Your task to perform on an android device: turn on the 24-hour format for clock Image 0: 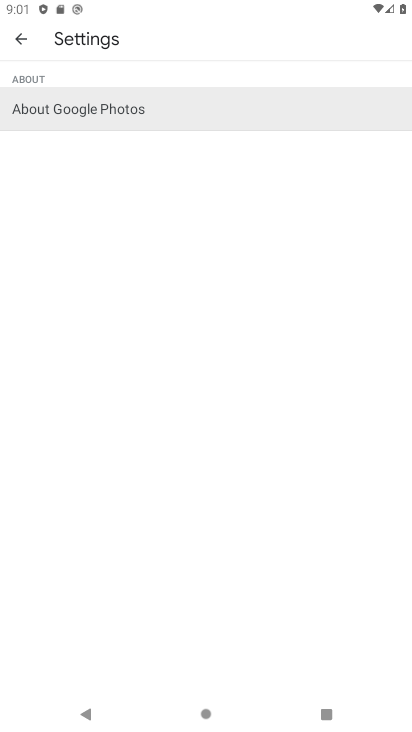
Step 0: click (11, 36)
Your task to perform on an android device: turn on the 24-hour format for clock Image 1: 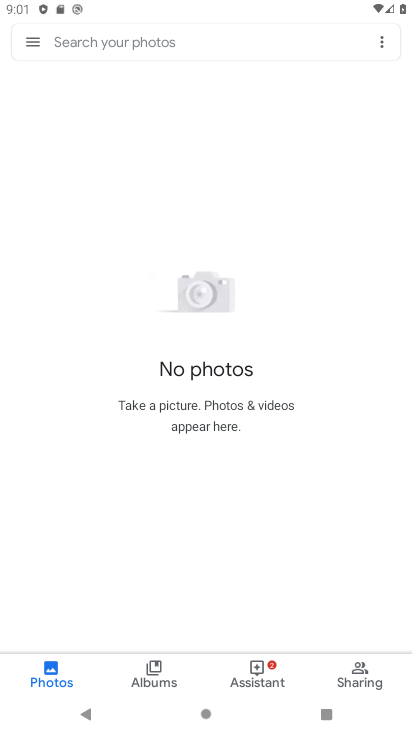
Step 1: press back button
Your task to perform on an android device: turn on the 24-hour format for clock Image 2: 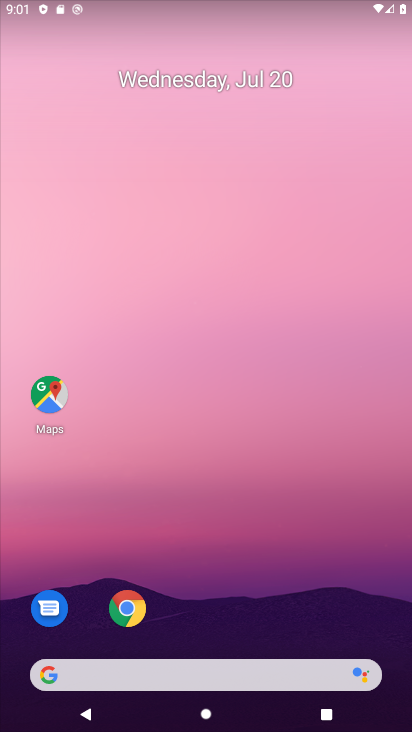
Step 2: click (171, 159)
Your task to perform on an android device: turn on the 24-hour format for clock Image 3: 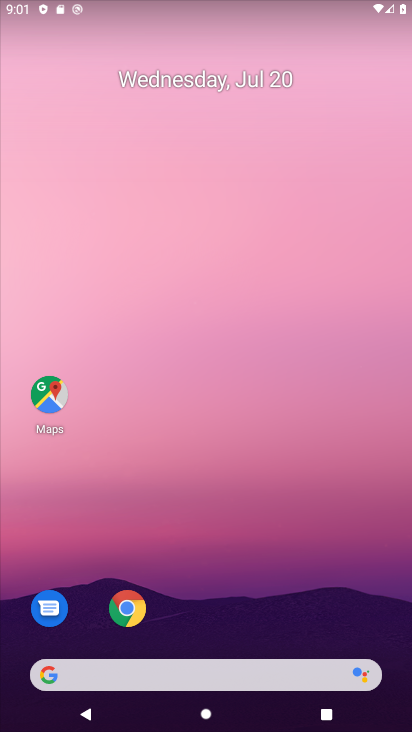
Step 3: drag from (254, 466) to (202, 59)
Your task to perform on an android device: turn on the 24-hour format for clock Image 4: 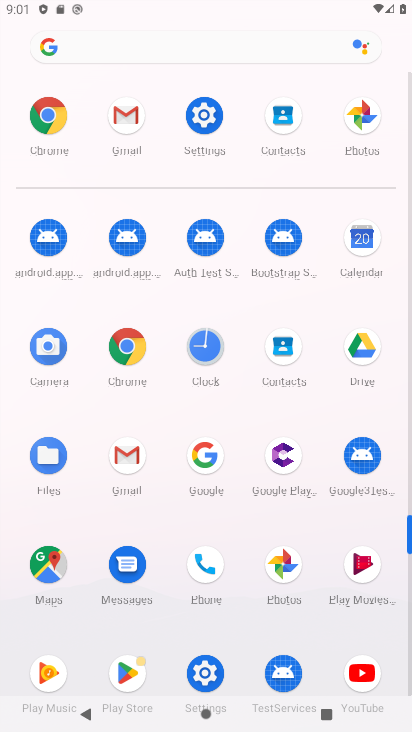
Step 4: drag from (186, 478) to (167, 249)
Your task to perform on an android device: turn on the 24-hour format for clock Image 5: 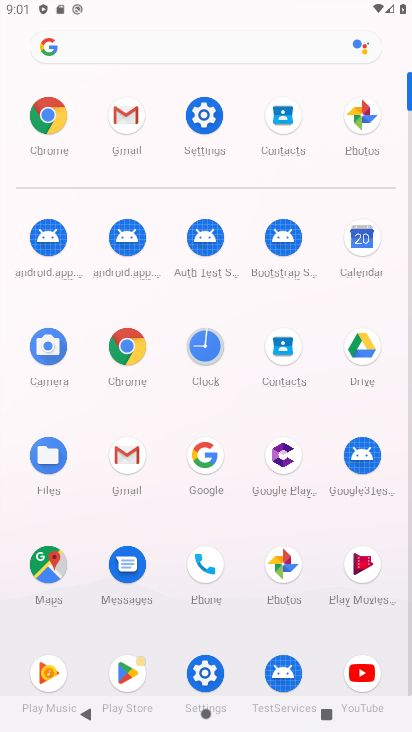
Step 5: click (210, 196)
Your task to perform on an android device: turn on the 24-hour format for clock Image 6: 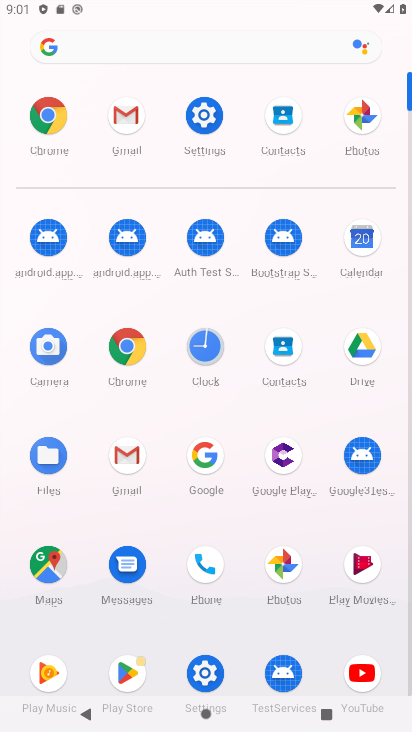
Step 6: drag from (317, 546) to (308, 131)
Your task to perform on an android device: turn on the 24-hour format for clock Image 7: 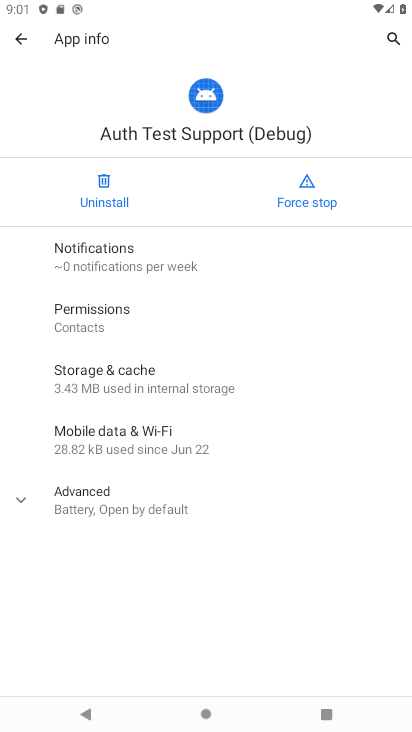
Step 7: click (195, 332)
Your task to perform on an android device: turn on the 24-hour format for clock Image 8: 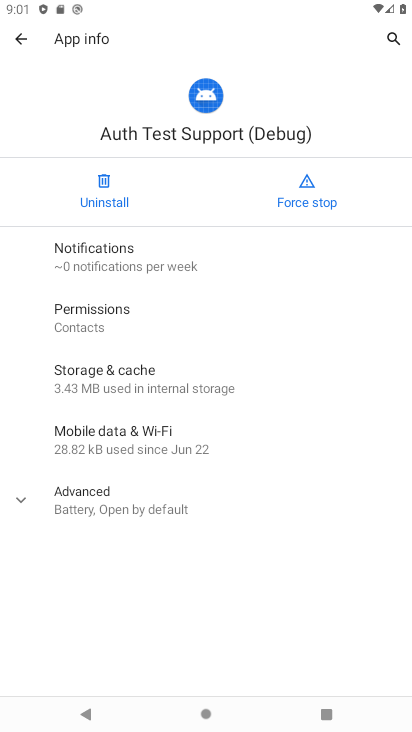
Step 8: click (197, 334)
Your task to perform on an android device: turn on the 24-hour format for clock Image 9: 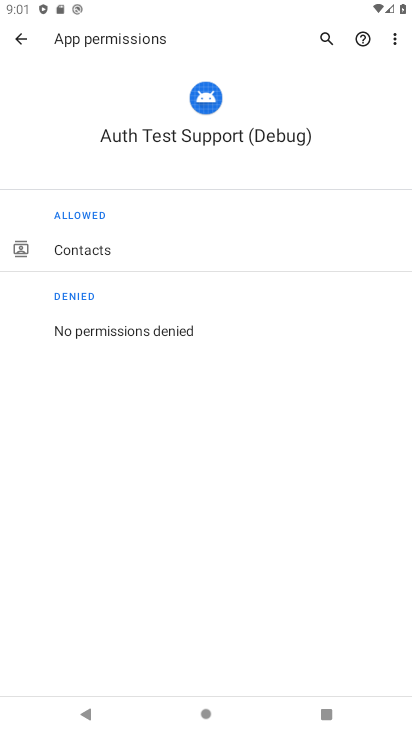
Step 9: click (29, 33)
Your task to perform on an android device: turn on the 24-hour format for clock Image 10: 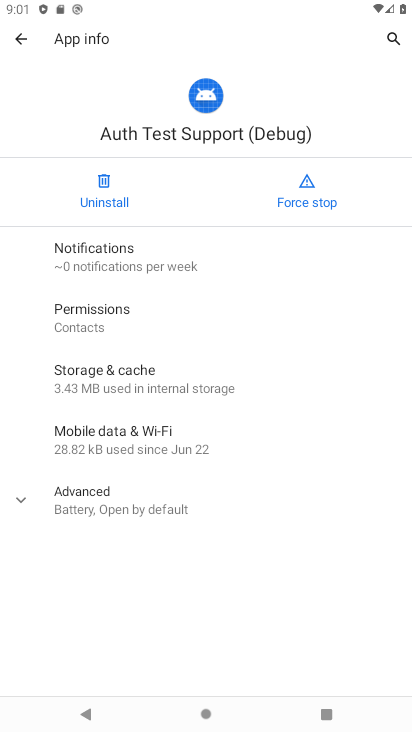
Step 10: click (16, 33)
Your task to perform on an android device: turn on the 24-hour format for clock Image 11: 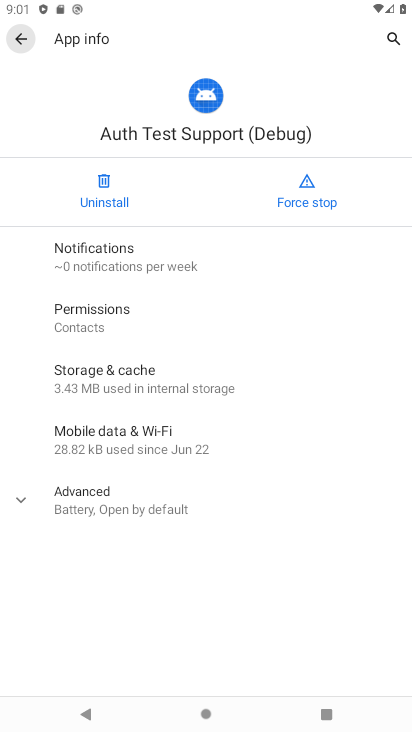
Step 11: click (15, 32)
Your task to perform on an android device: turn on the 24-hour format for clock Image 12: 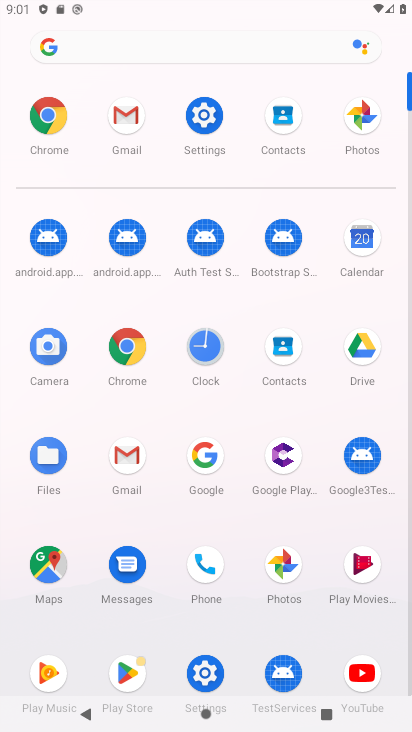
Step 12: click (203, 344)
Your task to perform on an android device: turn on the 24-hour format for clock Image 13: 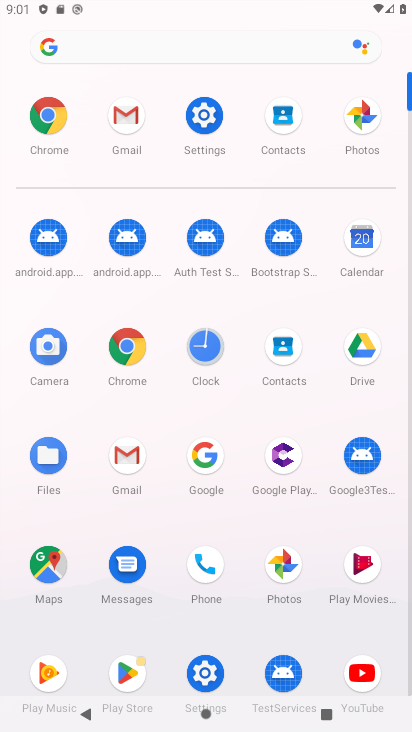
Step 13: click (203, 344)
Your task to perform on an android device: turn on the 24-hour format for clock Image 14: 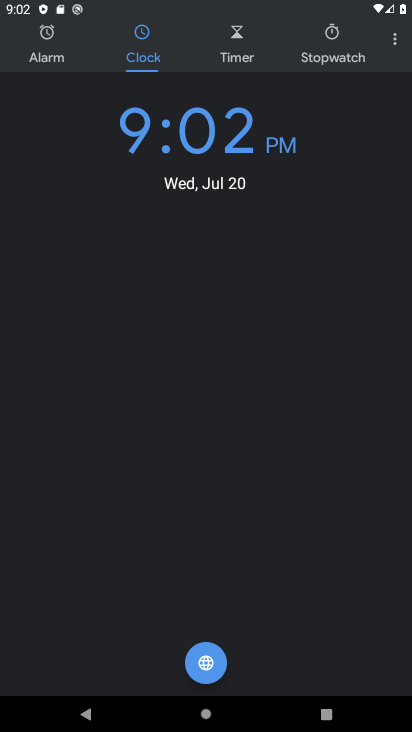
Step 14: click (393, 39)
Your task to perform on an android device: turn on the 24-hour format for clock Image 15: 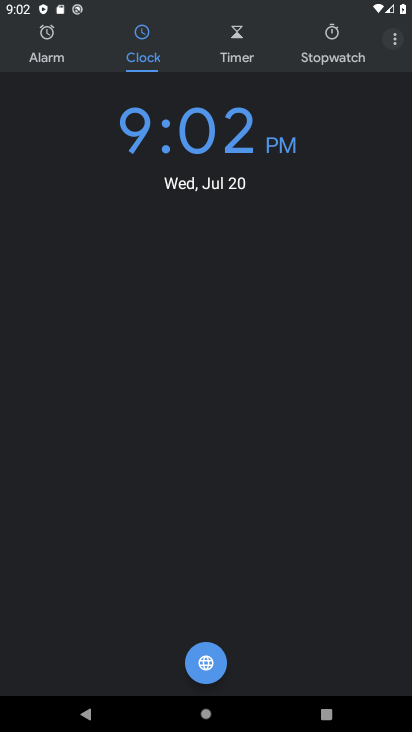
Step 15: click (393, 39)
Your task to perform on an android device: turn on the 24-hour format for clock Image 16: 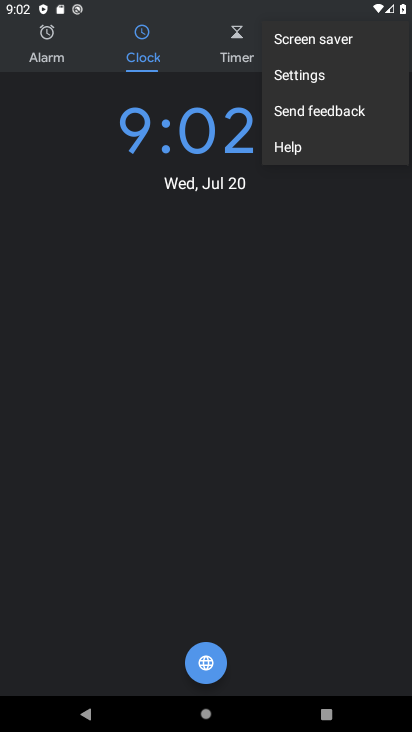
Step 16: click (294, 67)
Your task to perform on an android device: turn on the 24-hour format for clock Image 17: 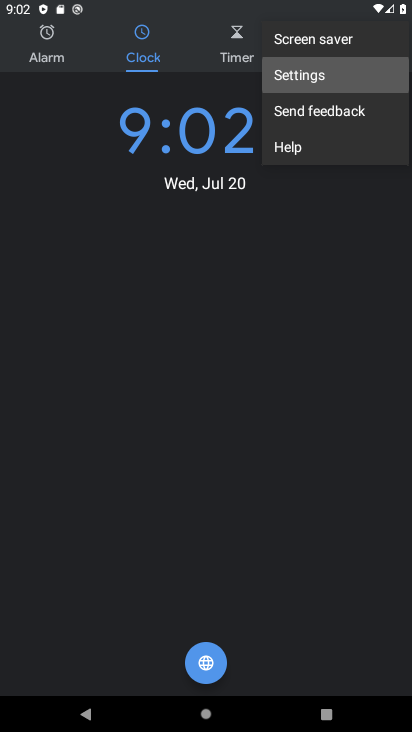
Step 17: click (300, 73)
Your task to perform on an android device: turn on the 24-hour format for clock Image 18: 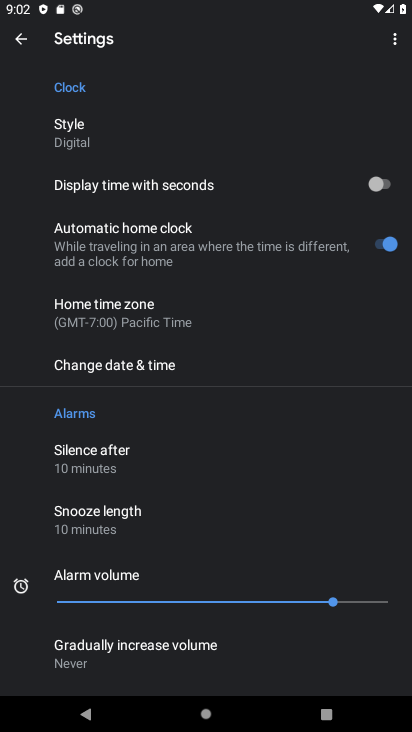
Step 18: click (111, 352)
Your task to perform on an android device: turn on the 24-hour format for clock Image 19: 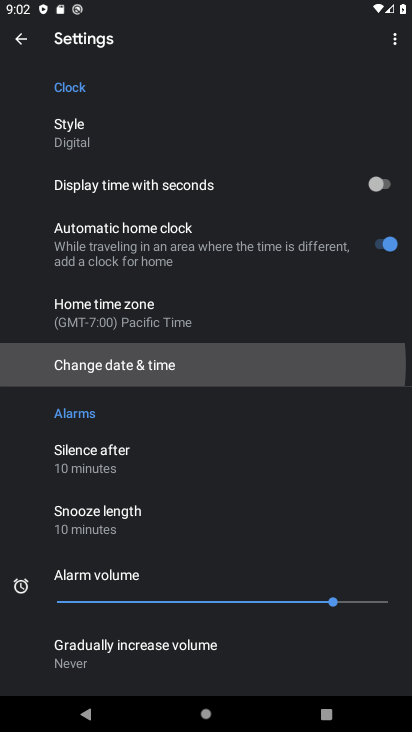
Step 19: click (114, 356)
Your task to perform on an android device: turn on the 24-hour format for clock Image 20: 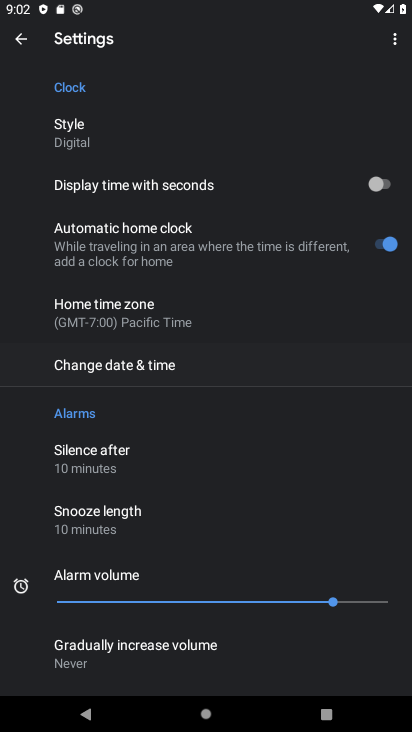
Step 20: click (115, 356)
Your task to perform on an android device: turn on the 24-hour format for clock Image 21: 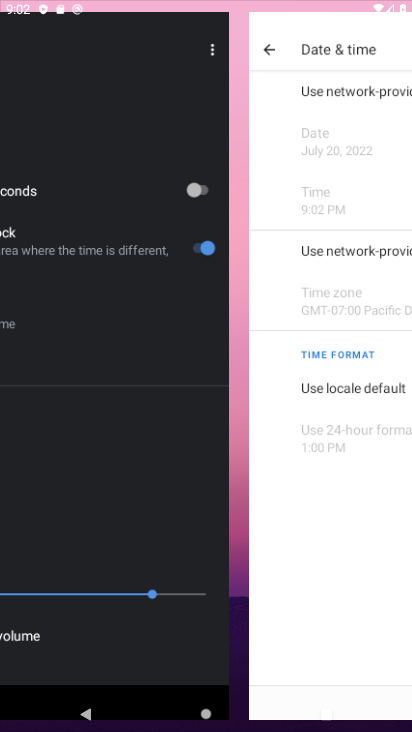
Step 21: click (120, 359)
Your task to perform on an android device: turn on the 24-hour format for clock Image 22: 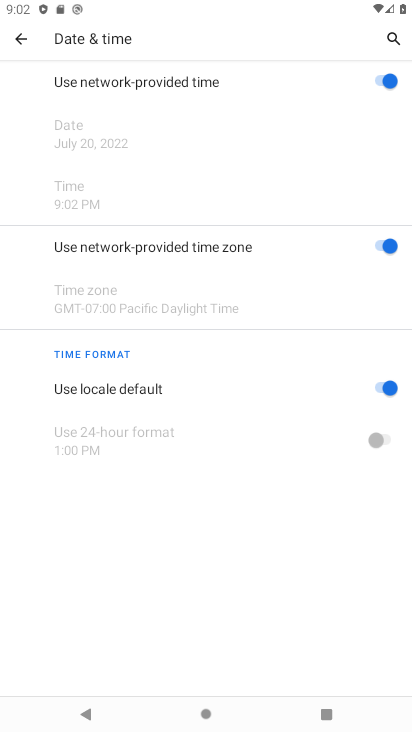
Step 22: click (379, 437)
Your task to perform on an android device: turn on the 24-hour format for clock Image 23: 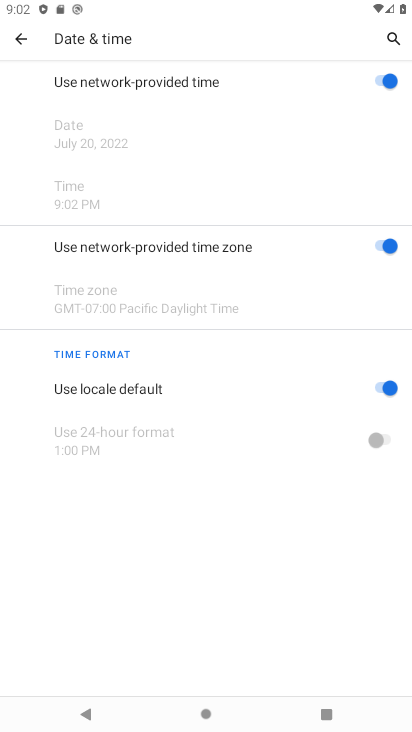
Step 23: click (381, 374)
Your task to perform on an android device: turn on the 24-hour format for clock Image 24: 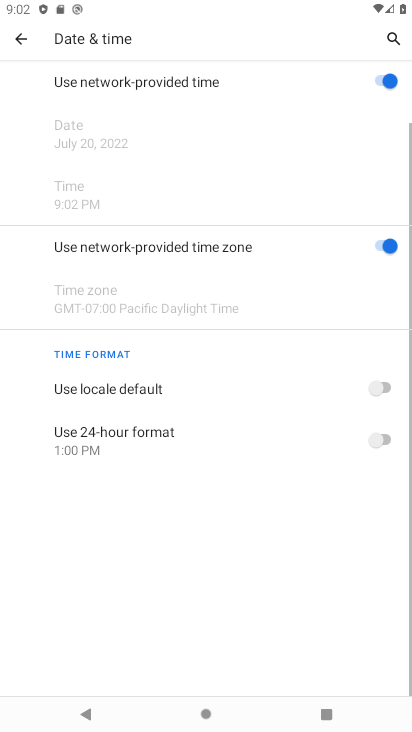
Step 24: click (376, 446)
Your task to perform on an android device: turn on the 24-hour format for clock Image 25: 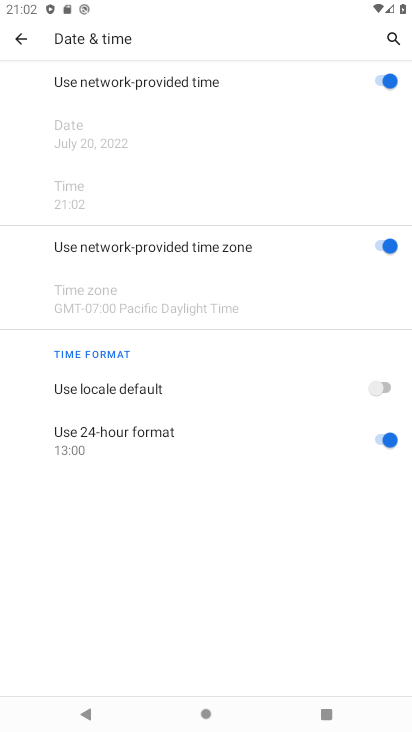
Step 25: task complete